Your task to perform on an android device: change notification settings in the gmail app Image 0: 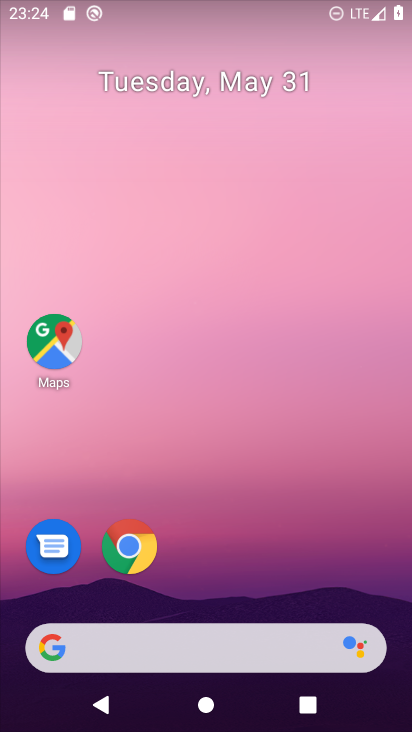
Step 0: drag from (409, 602) to (386, 177)
Your task to perform on an android device: change notification settings in the gmail app Image 1: 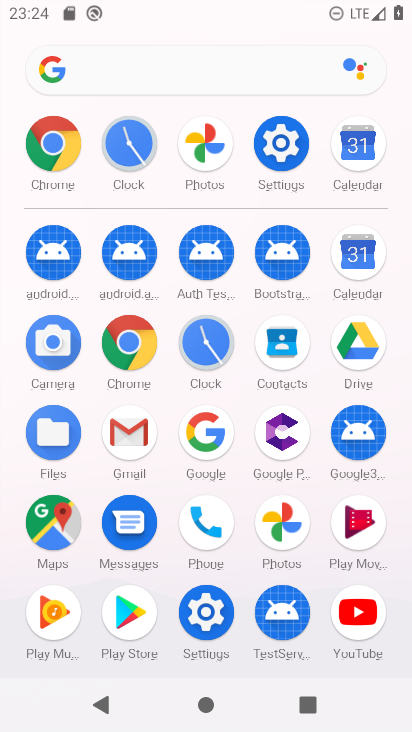
Step 1: click (119, 430)
Your task to perform on an android device: change notification settings in the gmail app Image 2: 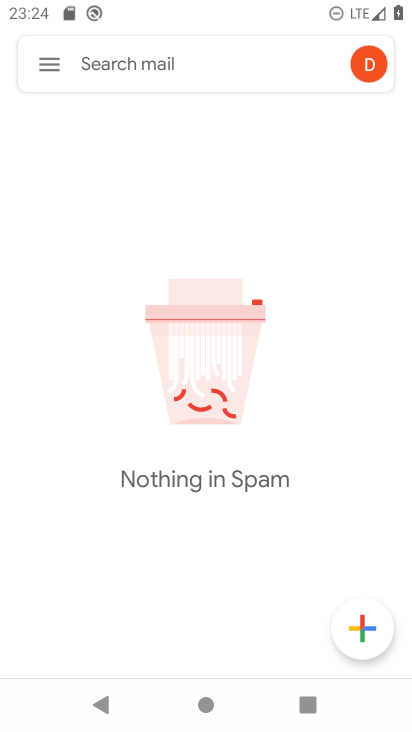
Step 2: click (44, 63)
Your task to perform on an android device: change notification settings in the gmail app Image 3: 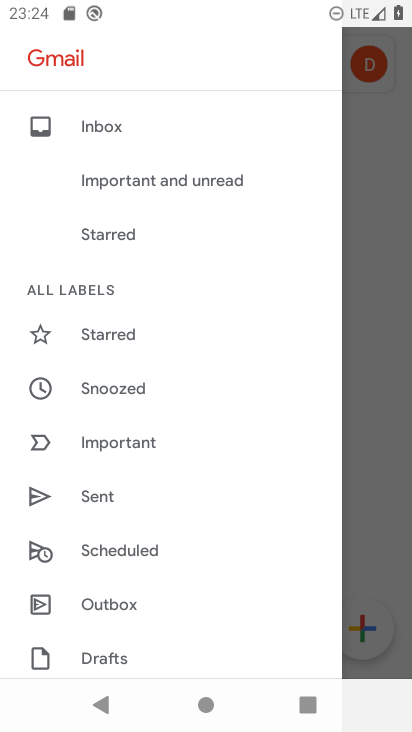
Step 3: drag from (234, 625) to (246, 210)
Your task to perform on an android device: change notification settings in the gmail app Image 4: 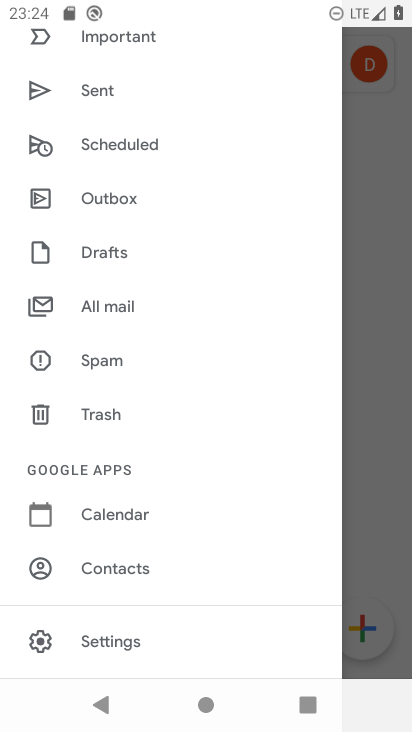
Step 4: click (120, 637)
Your task to perform on an android device: change notification settings in the gmail app Image 5: 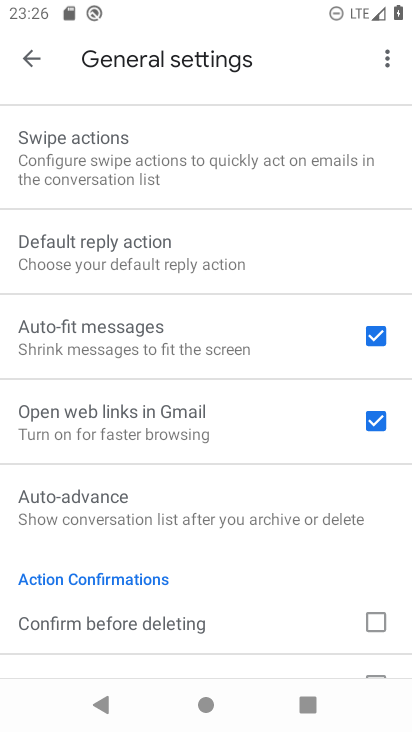
Step 5: drag from (182, 151) to (184, 520)
Your task to perform on an android device: change notification settings in the gmail app Image 6: 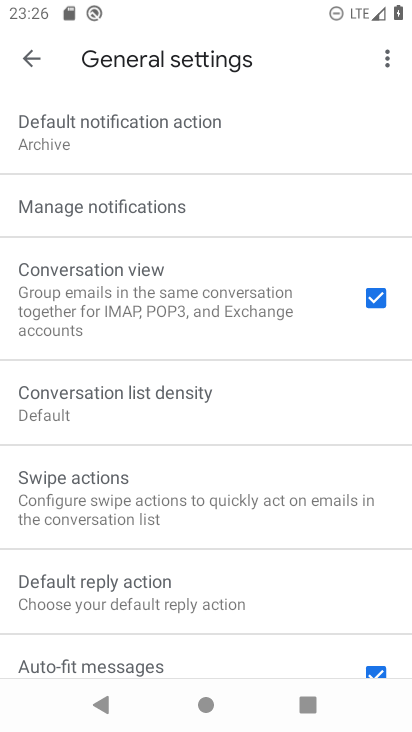
Step 6: click (74, 210)
Your task to perform on an android device: change notification settings in the gmail app Image 7: 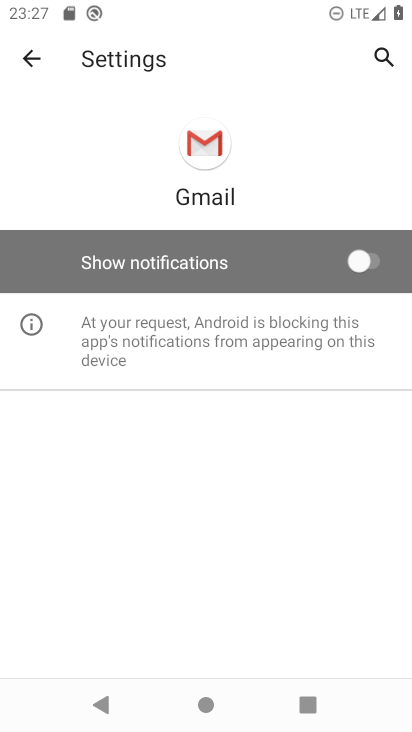
Step 7: task complete